Your task to perform on an android device: toggle notifications settings in the gmail app Image 0: 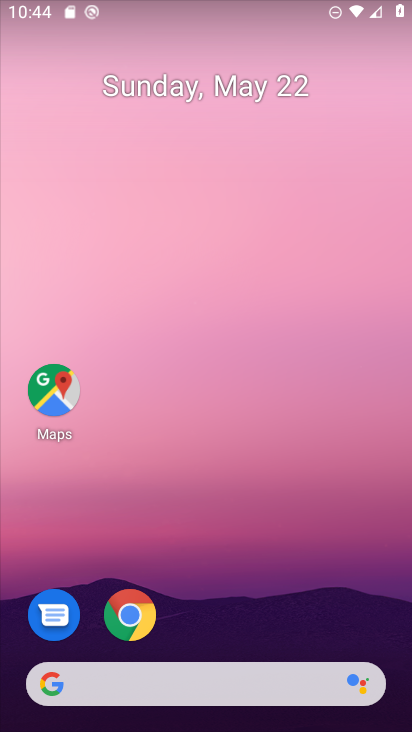
Step 0: drag from (357, 575) to (224, 101)
Your task to perform on an android device: toggle notifications settings in the gmail app Image 1: 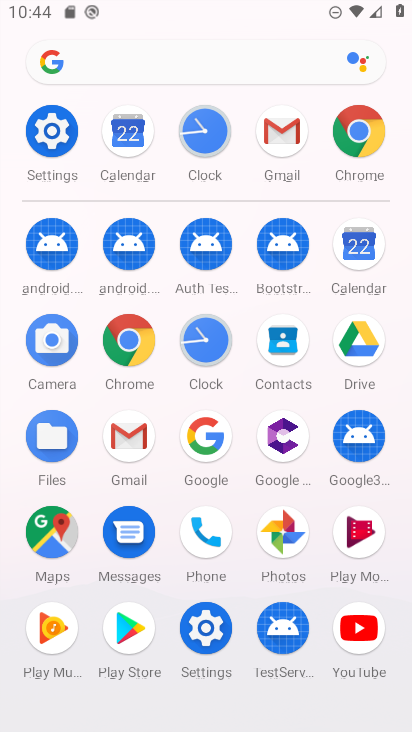
Step 1: click (288, 125)
Your task to perform on an android device: toggle notifications settings in the gmail app Image 2: 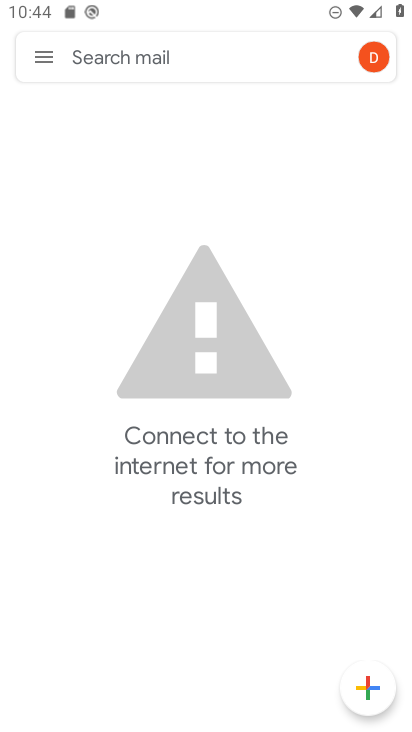
Step 2: click (37, 58)
Your task to perform on an android device: toggle notifications settings in the gmail app Image 3: 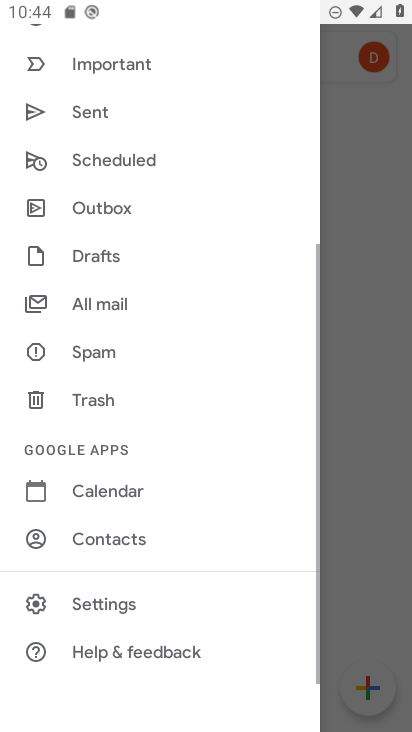
Step 3: click (104, 605)
Your task to perform on an android device: toggle notifications settings in the gmail app Image 4: 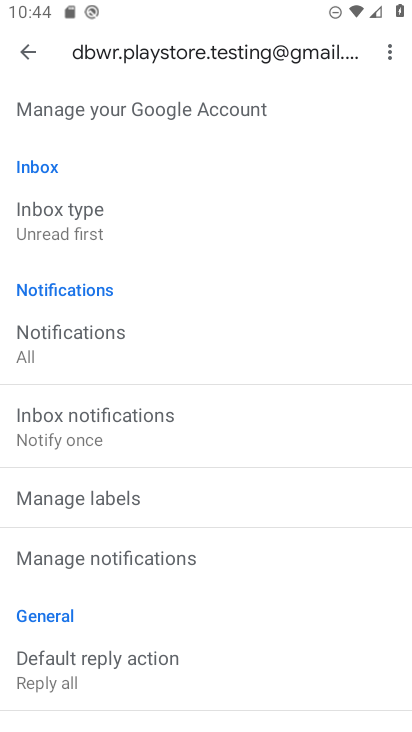
Step 4: drag from (208, 610) to (216, 159)
Your task to perform on an android device: toggle notifications settings in the gmail app Image 5: 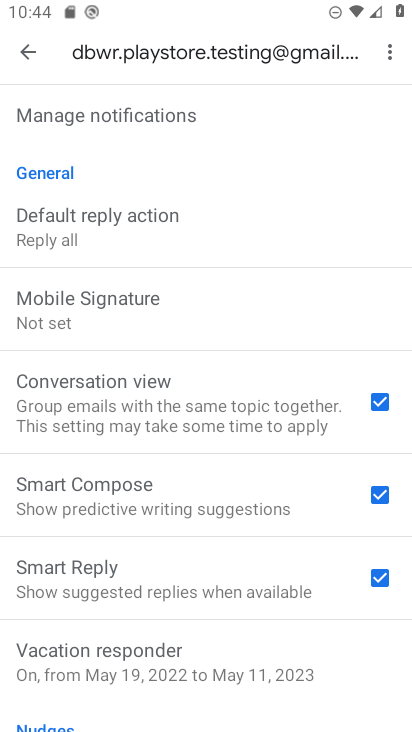
Step 5: drag from (157, 536) to (290, 679)
Your task to perform on an android device: toggle notifications settings in the gmail app Image 6: 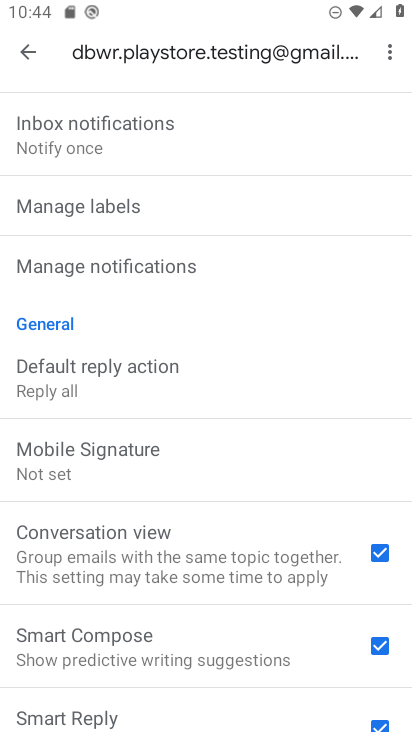
Step 6: click (166, 268)
Your task to perform on an android device: toggle notifications settings in the gmail app Image 7: 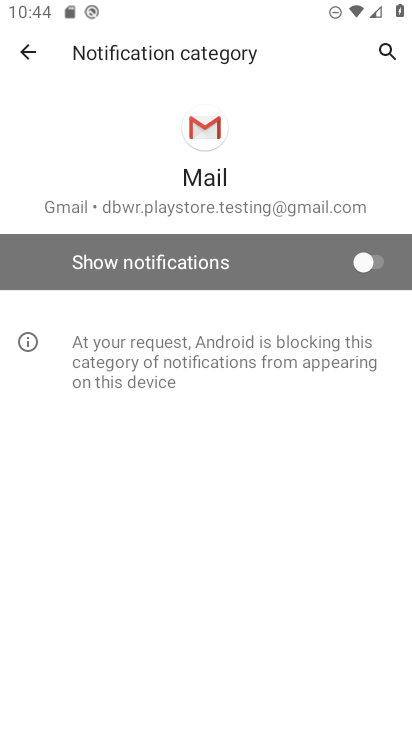
Step 7: click (358, 252)
Your task to perform on an android device: toggle notifications settings in the gmail app Image 8: 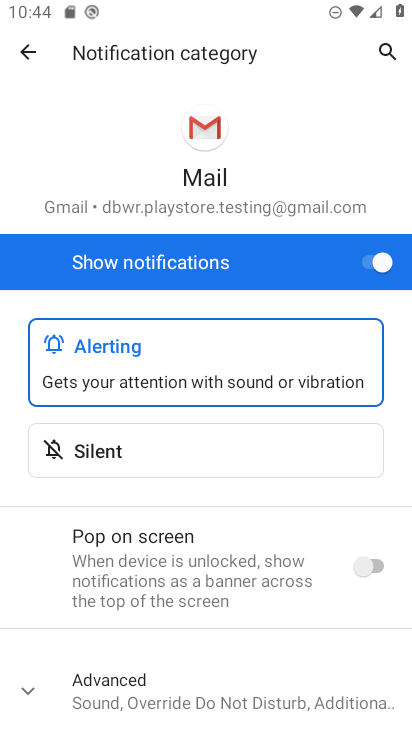
Step 8: task complete